Your task to perform on an android device: open sync settings in chrome Image 0: 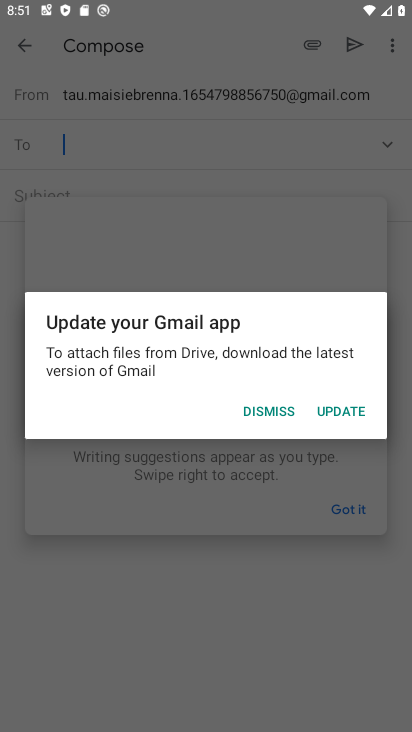
Step 0: press home button
Your task to perform on an android device: open sync settings in chrome Image 1: 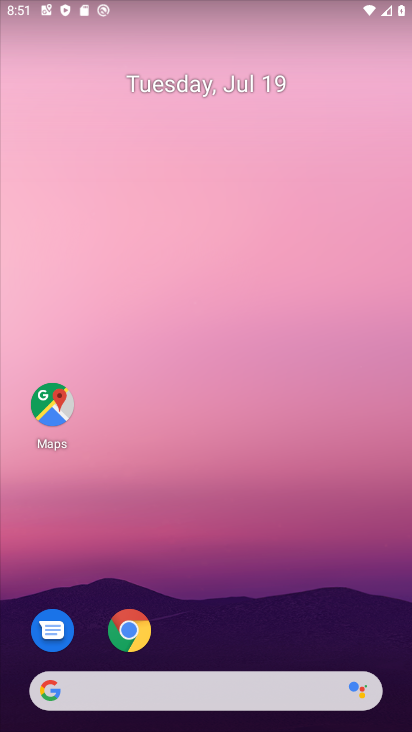
Step 1: click (131, 625)
Your task to perform on an android device: open sync settings in chrome Image 2: 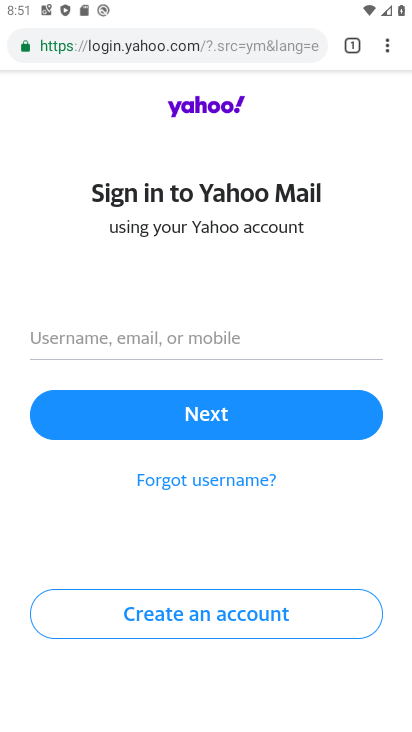
Step 2: click (380, 43)
Your task to perform on an android device: open sync settings in chrome Image 3: 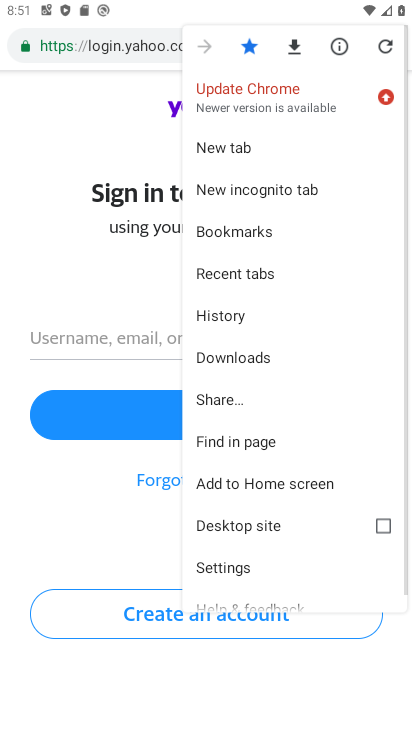
Step 3: click (230, 575)
Your task to perform on an android device: open sync settings in chrome Image 4: 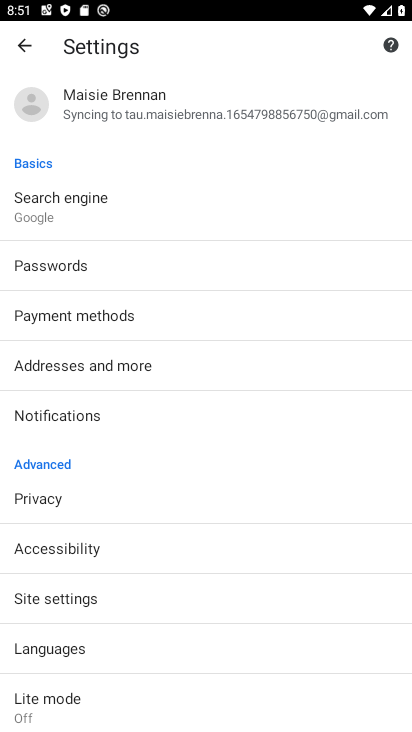
Step 4: click (64, 602)
Your task to perform on an android device: open sync settings in chrome Image 5: 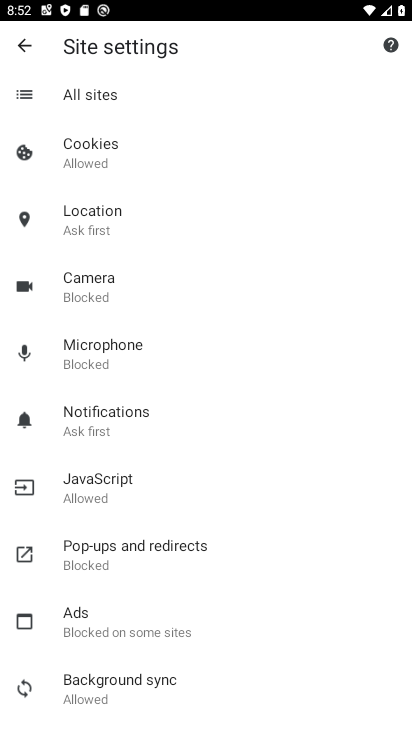
Step 5: click (112, 672)
Your task to perform on an android device: open sync settings in chrome Image 6: 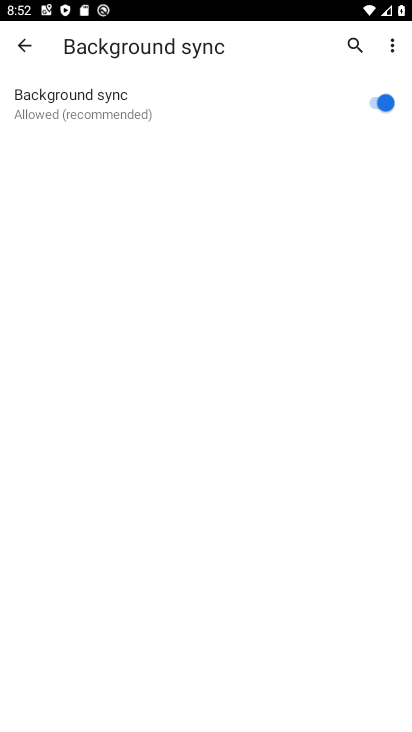
Step 6: task complete